Your task to perform on an android device: Open Yahoo.com Image 0: 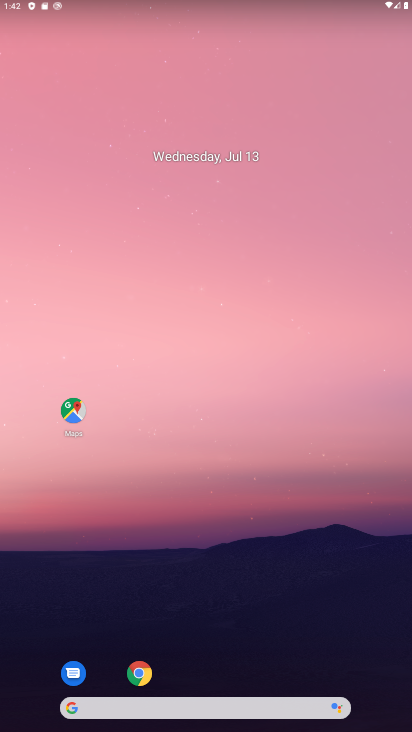
Step 0: drag from (313, 537) to (282, 58)
Your task to perform on an android device: Open Yahoo.com Image 1: 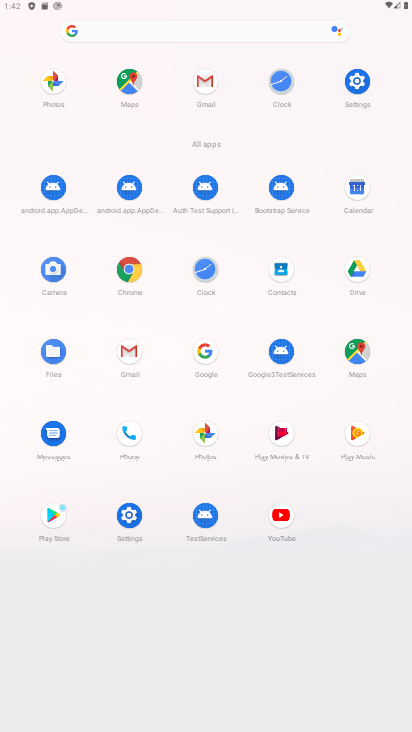
Step 1: click (131, 265)
Your task to perform on an android device: Open Yahoo.com Image 2: 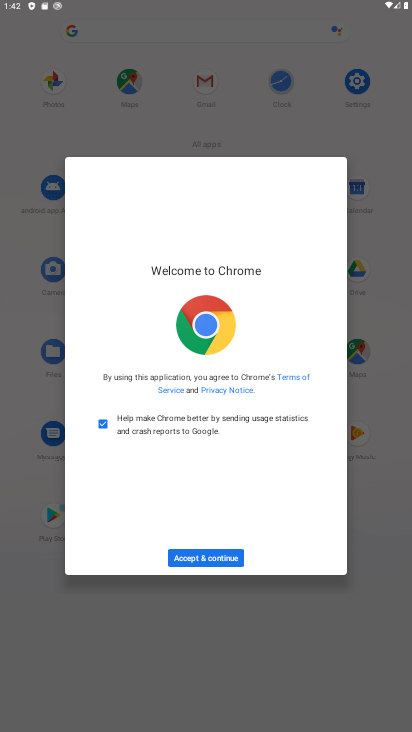
Step 2: click (214, 556)
Your task to perform on an android device: Open Yahoo.com Image 3: 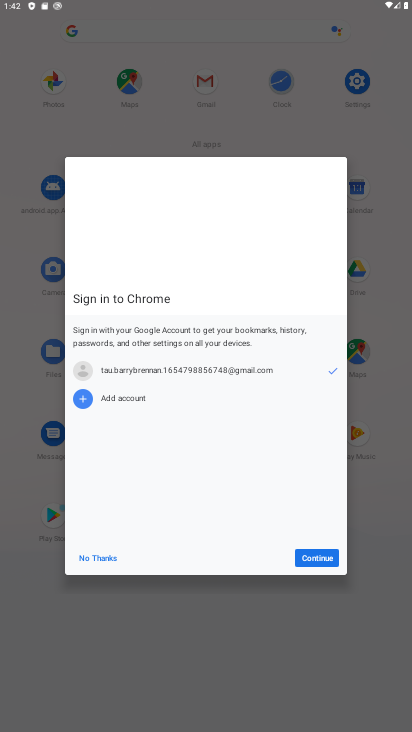
Step 3: click (95, 550)
Your task to perform on an android device: Open Yahoo.com Image 4: 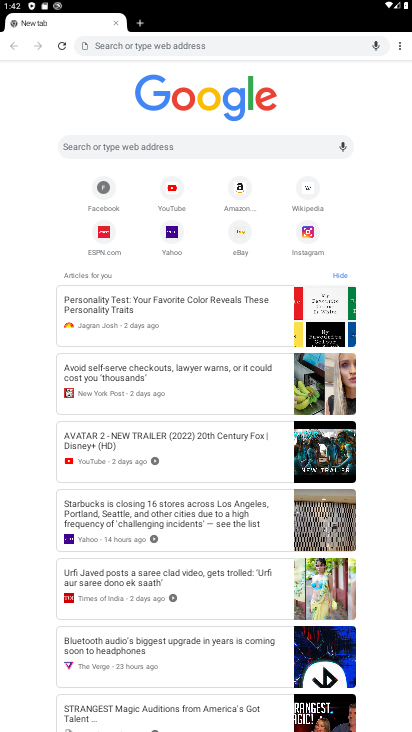
Step 4: click (171, 231)
Your task to perform on an android device: Open Yahoo.com Image 5: 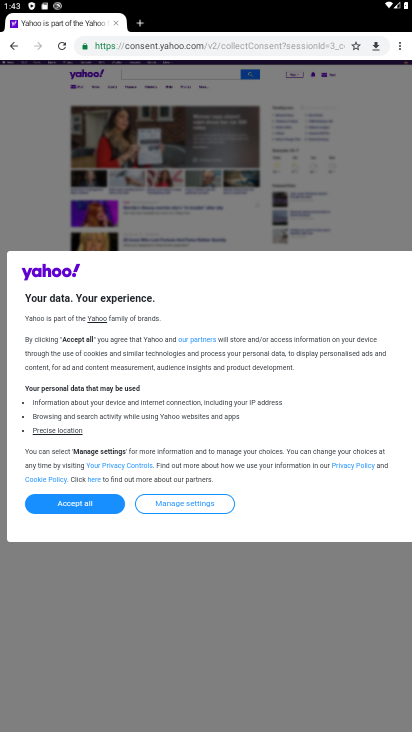
Step 5: task complete